Your task to perform on an android device: check the backup settings in the google photos Image 0: 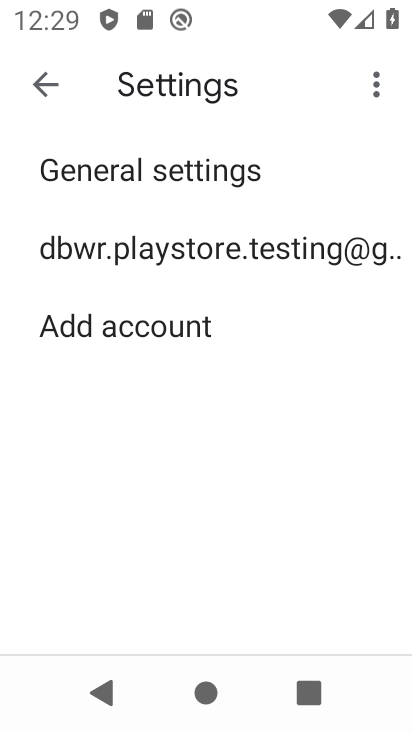
Step 0: press home button
Your task to perform on an android device: check the backup settings in the google photos Image 1: 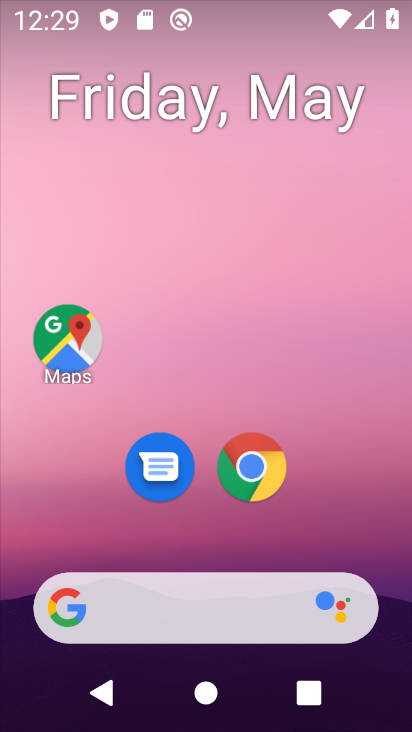
Step 1: drag from (385, 488) to (330, 130)
Your task to perform on an android device: check the backup settings in the google photos Image 2: 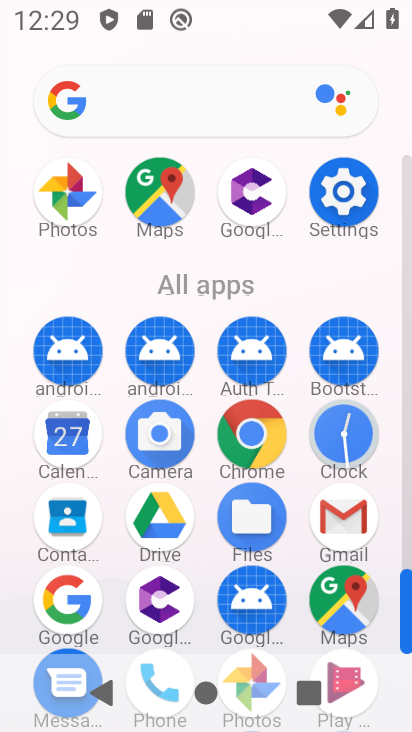
Step 2: drag from (410, 627) to (48, 403)
Your task to perform on an android device: check the backup settings in the google photos Image 3: 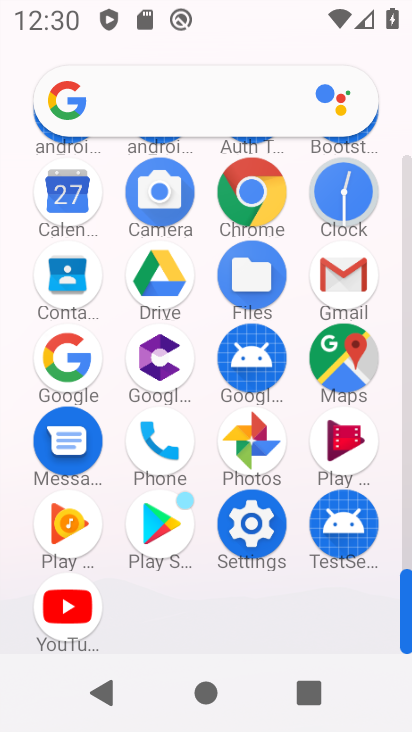
Step 3: click (274, 535)
Your task to perform on an android device: check the backup settings in the google photos Image 4: 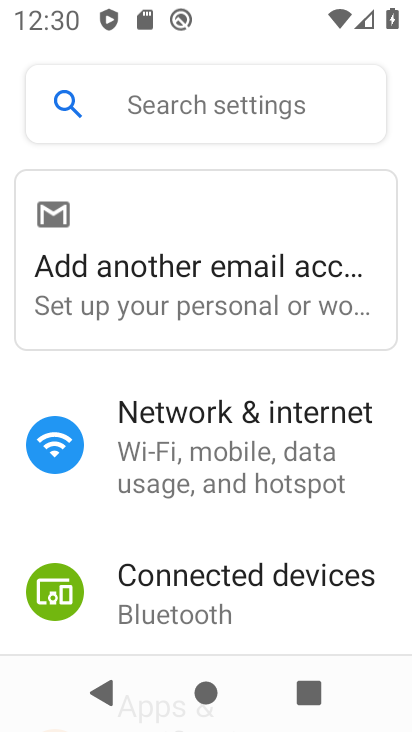
Step 4: press home button
Your task to perform on an android device: check the backup settings in the google photos Image 5: 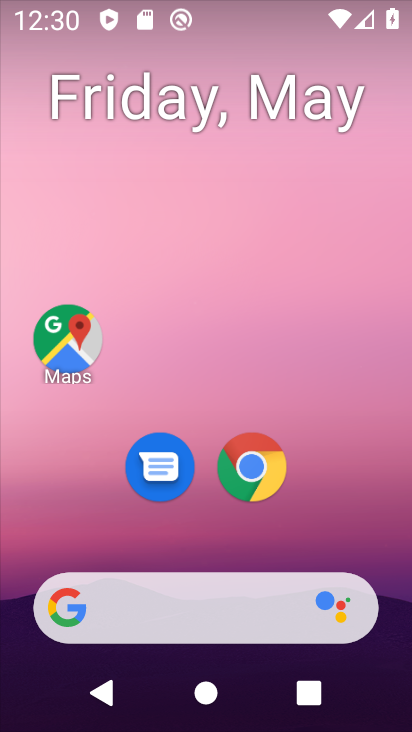
Step 5: drag from (411, 580) to (371, 167)
Your task to perform on an android device: check the backup settings in the google photos Image 6: 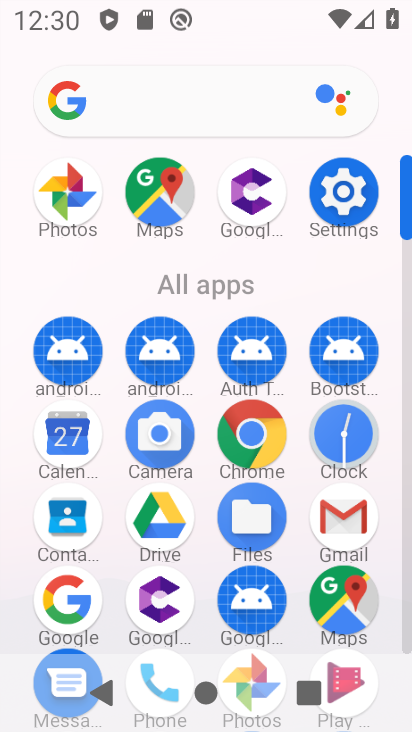
Step 6: click (406, 647)
Your task to perform on an android device: check the backup settings in the google photos Image 7: 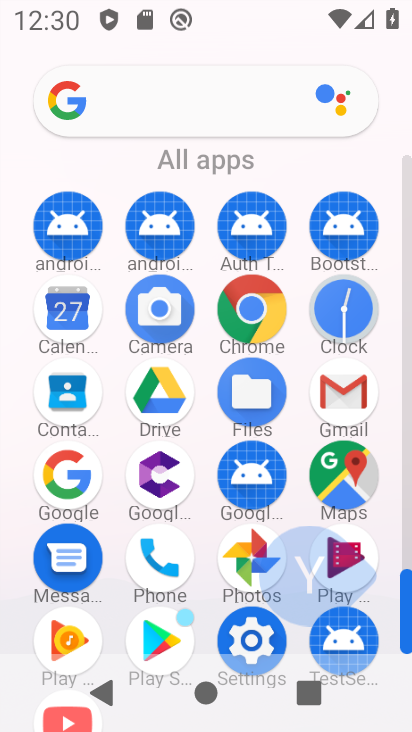
Step 7: click (406, 647)
Your task to perform on an android device: check the backup settings in the google photos Image 8: 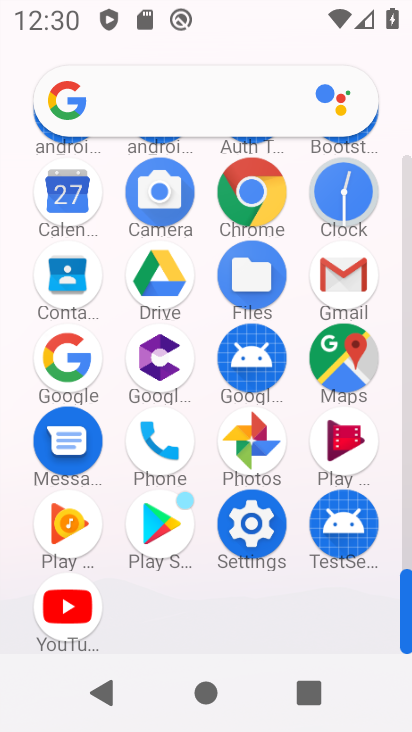
Step 8: click (245, 469)
Your task to perform on an android device: check the backup settings in the google photos Image 9: 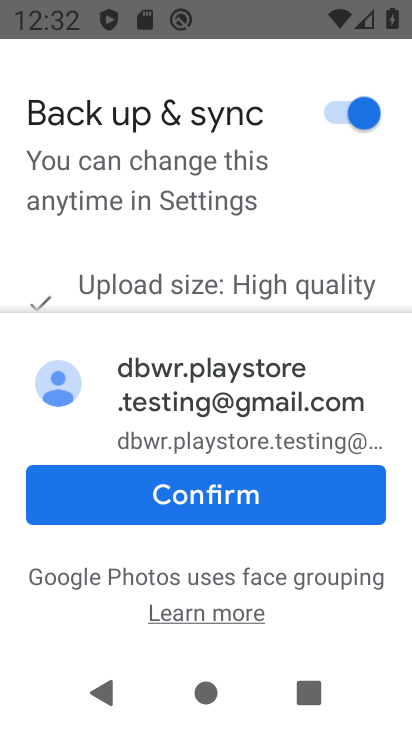
Step 9: click (204, 484)
Your task to perform on an android device: check the backup settings in the google photos Image 10: 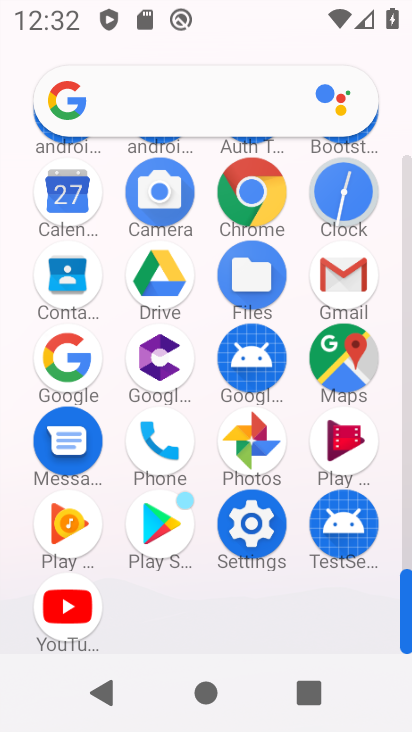
Step 10: click (256, 454)
Your task to perform on an android device: check the backup settings in the google photos Image 11: 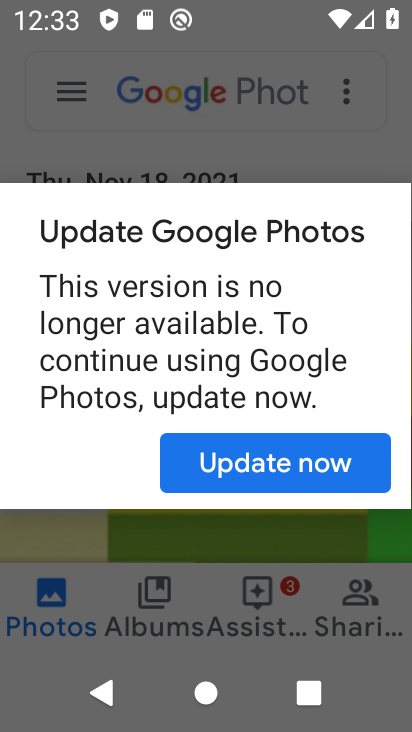
Step 11: click (177, 482)
Your task to perform on an android device: check the backup settings in the google photos Image 12: 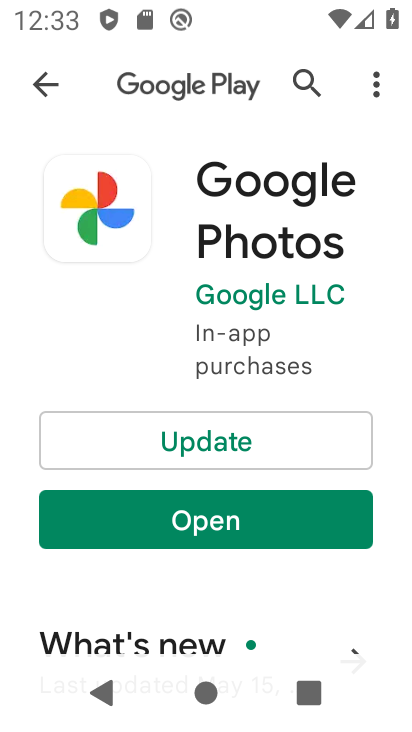
Step 12: click (257, 429)
Your task to perform on an android device: check the backup settings in the google photos Image 13: 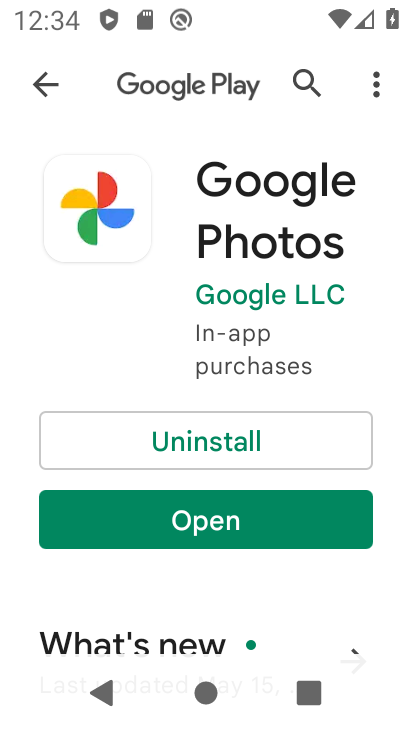
Step 13: click (265, 527)
Your task to perform on an android device: check the backup settings in the google photos Image 14: 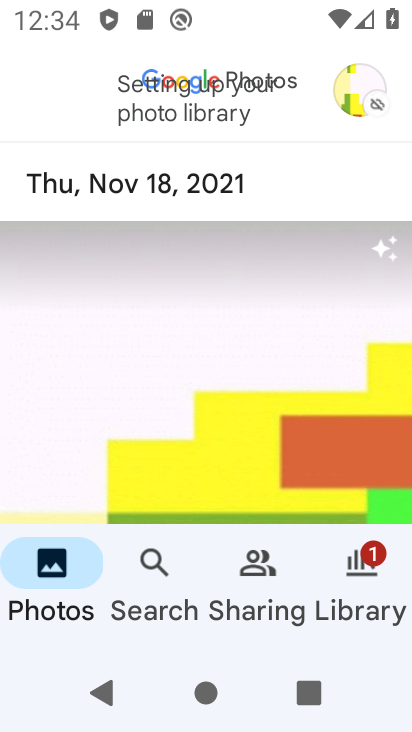
Step 14: click (392, 88)
Your task to perform on an android device: check the backup settings in the google photos Image 15: 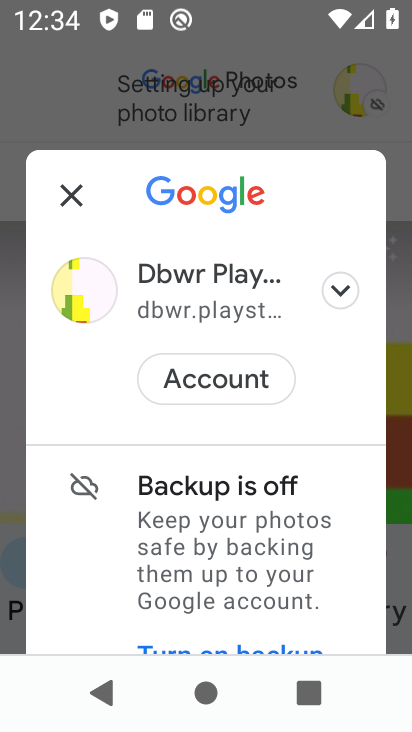
Step 15: drag from (198, 576) to (179, 21)
Your task to perform on an android device: check the backup settings in the google photos Image 16: 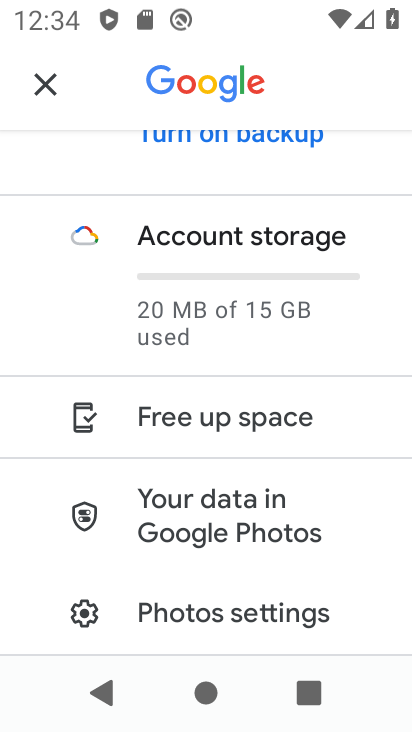
Step 16: click (191, 619)
Your task to perform on an android device: check the backup settings in the google photos Image 17: 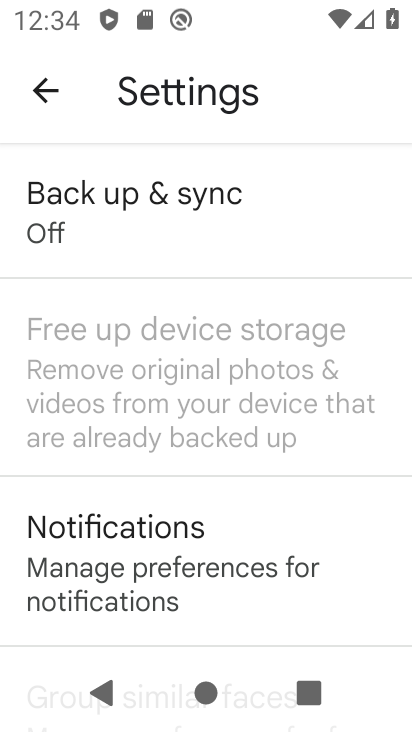
Step 17: click (300, 269)
Your task to perform on an android device: check the backup settings in the google photos Image 18: 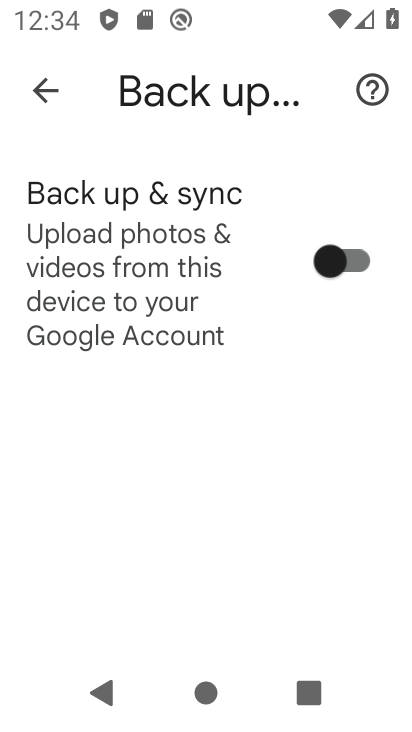
Step 18: task complete